Your task to perform on an android device: Open Android settings Image 0: 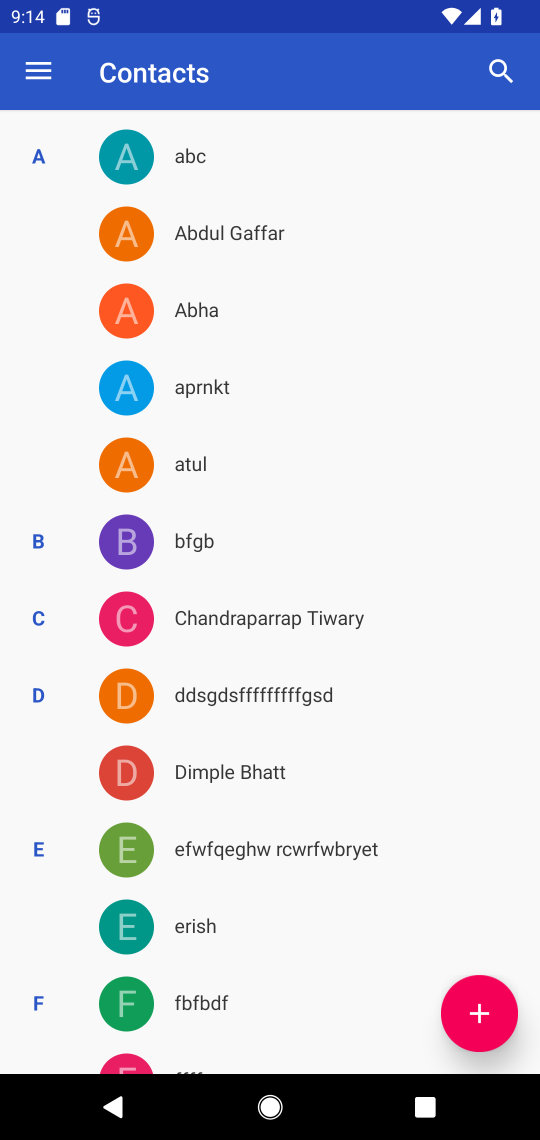
Step 0: press home button
Your task to perform on an android device: Open Android settings Image 1: 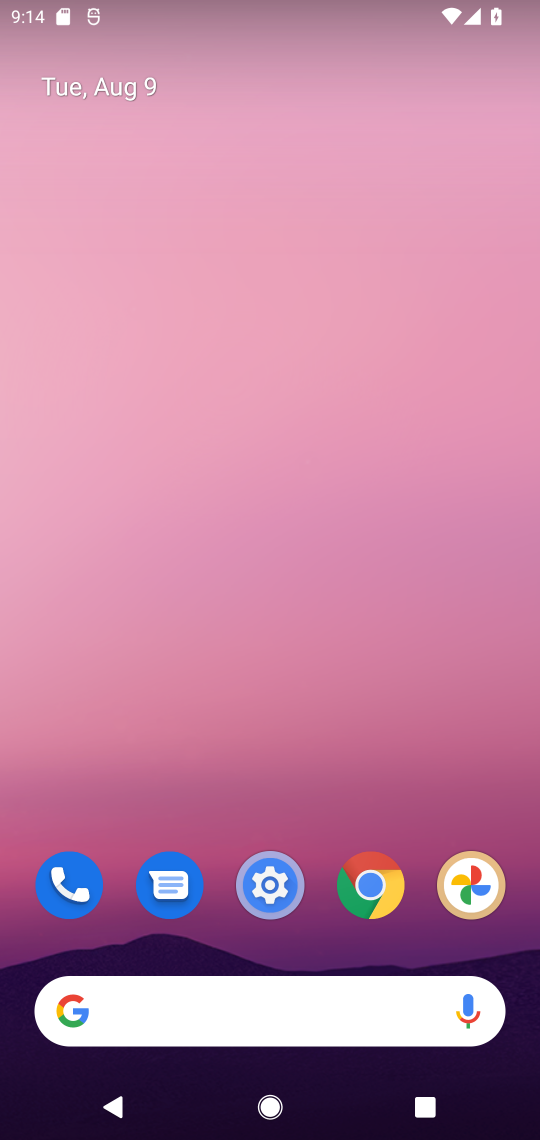
Step 1: click (234, 892)
Your task to perform on an android device: Open Android settings Image 2: 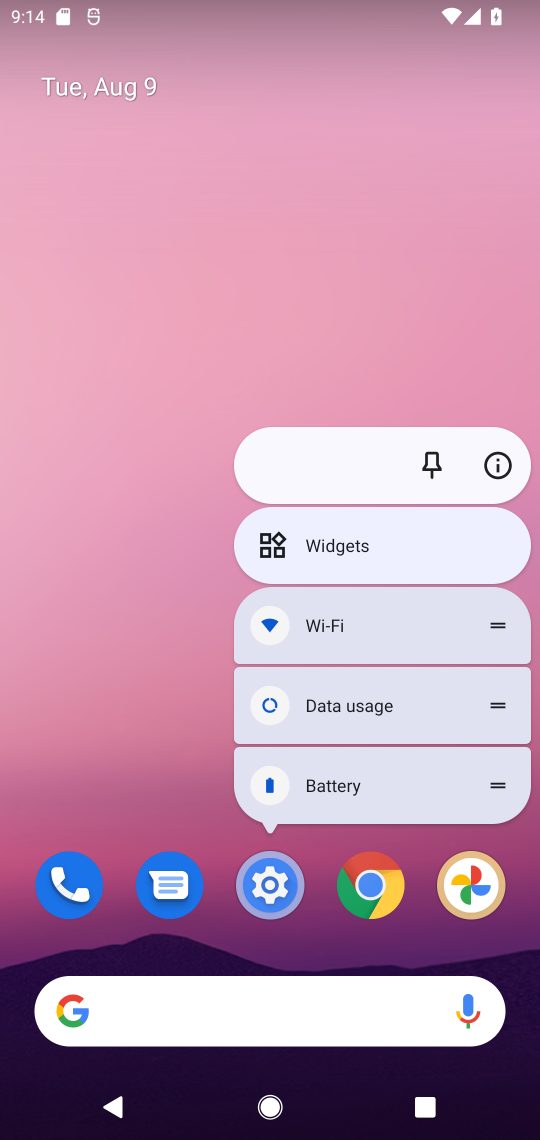
Step 2: click (249, 894)
Your task to perform on an android device: Open Android settings Image 3: 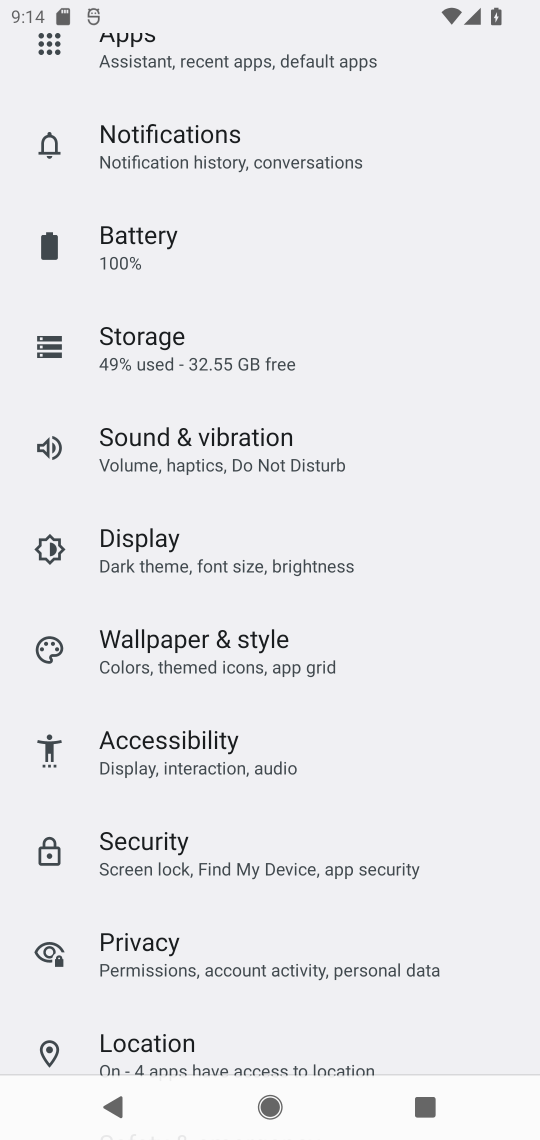
Step 3: task complete